Your task to perform on an android device: snooze an email in the gmail app Image 0: 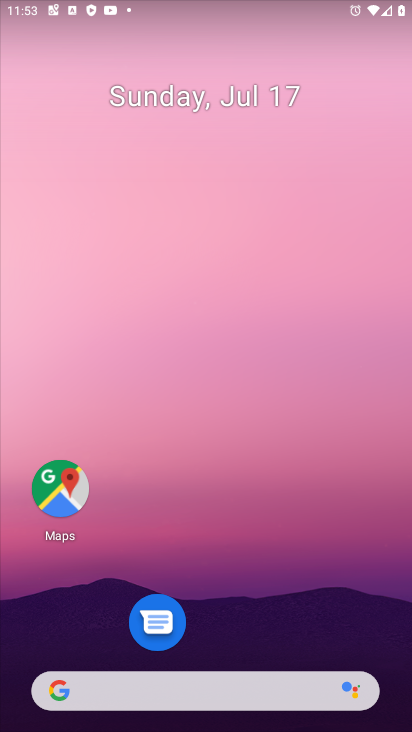
Step 0: drag from (227, 723) to (368, 65)
Your task to perform on an android device: snooze an email in the gmail app Image 1: 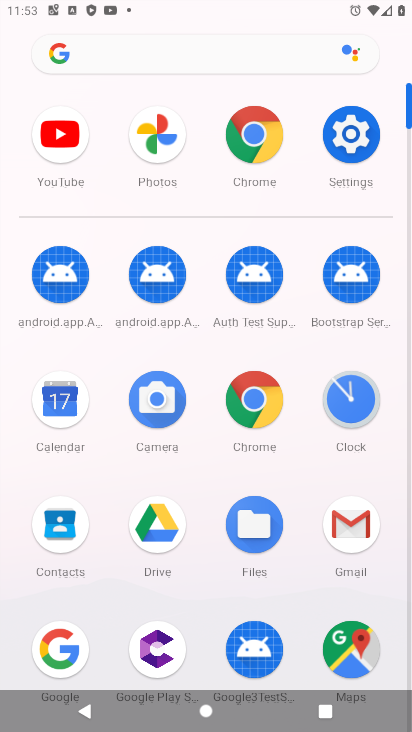
Step 1: click (356, 520)
Your task to perform on an android device: snooze an email in the gmail app Image 2: 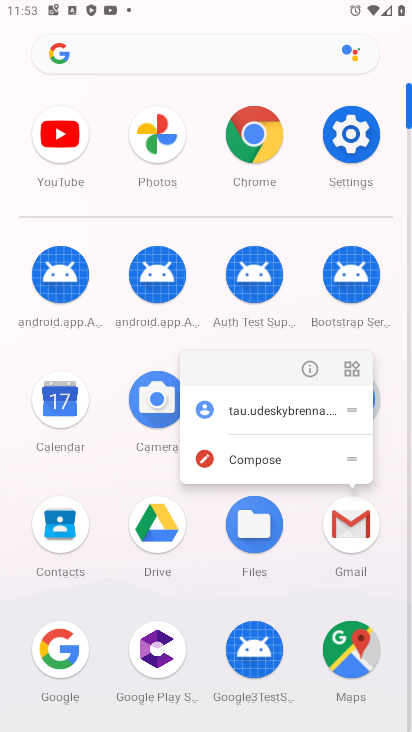
Step 2: click (356, 520)
Your task to perform on an android device: snooze an email in the gmail app Image 3: 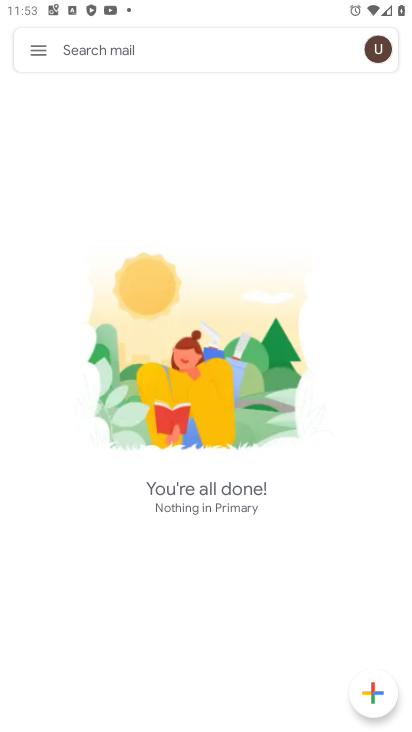
Step 3: task complete